Your task to perform on an android device: turn on javascript in the chrome app Image 0: 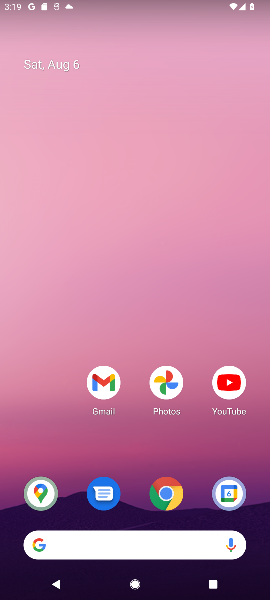
Step 0: drag from (201, 523) to (170, 200)
Your task to perform on an android device: turn on javascript in the chrome app Image 1: 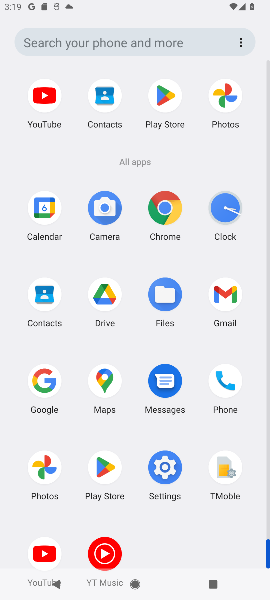
Step 1: click (163, 210)
Your task to perform on an android device: turn on javascript in the chrome app Image 2: 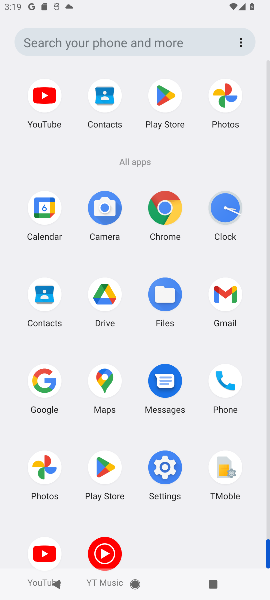
Step 2: click (163, 210)
Your task to perform on an android device: turn on javascript in the chrome app Image 3: 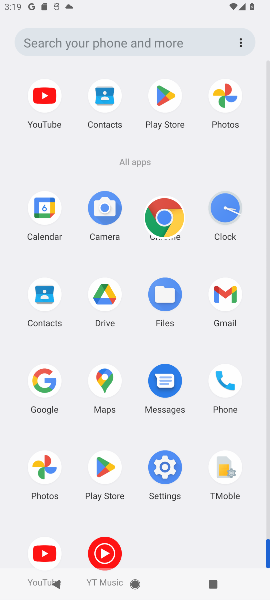
Step 3: click (168, 213)
Your task to perform on an android device: turn on javascript in the chrome app Image 4: 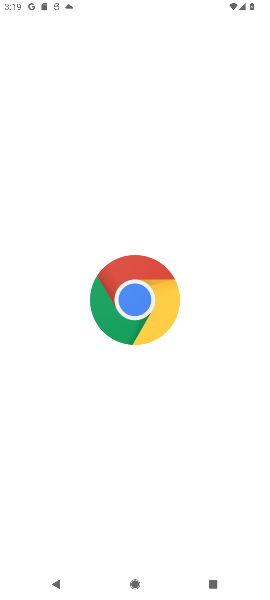
Step 4: click (165, 209)
Your task to perform on an android device: turn on javascript in the chrome app Image 5: 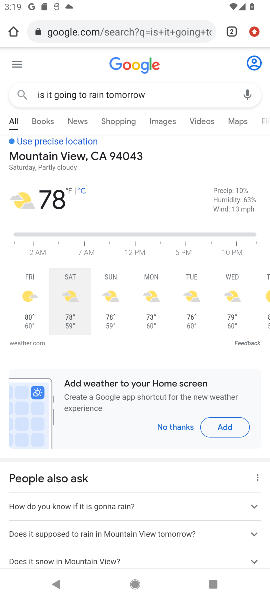
Step 5: drag from (255, 29) to (226, 300)
Your task to perform on an android device: turn on javascript in the chrome app Image 6: 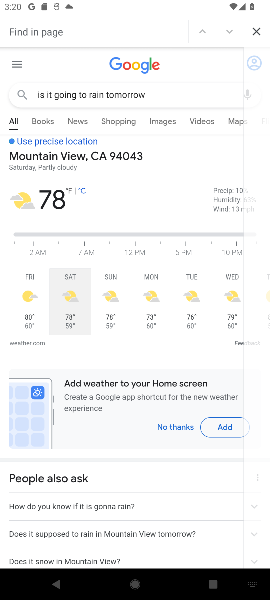
Step 6: click (254, 26)
Your task to perform on an android device: turn on javascript in the chrome app Image 7: 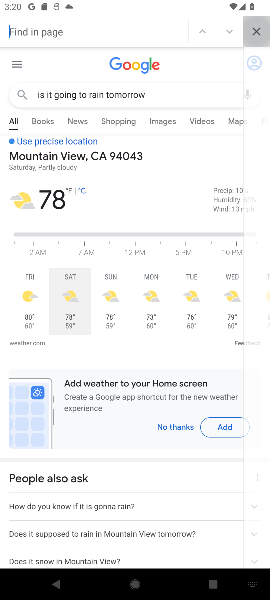
Step 7: click (254, 26)
Your task to perform on an android device: turn on javascript in the chrome app Image 8: 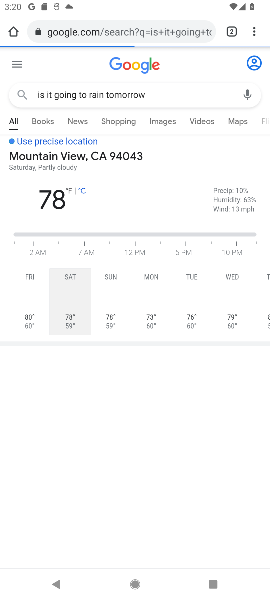
Step 8: drag from (255, 26) to (191, 411)
Your task to perform on an android device: turn on javascript in the chrome app Image 9: 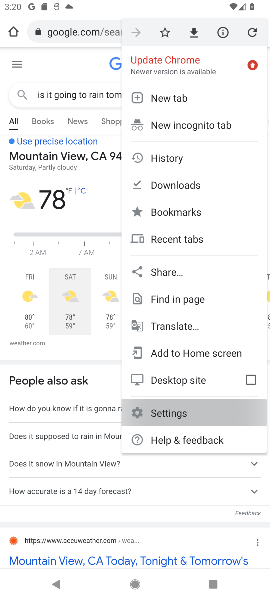
Step 9: click (192, 411)
Your task to perform on an android device: turn on javascript in the chrome app Image 10: 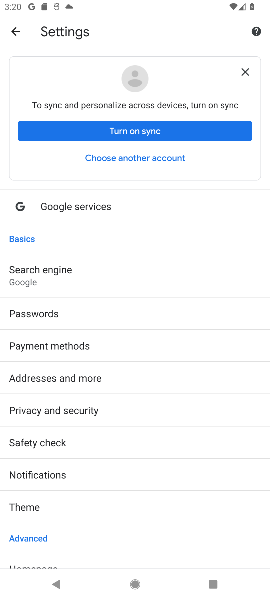
Step 10: drag from (114, 482) to (71, 172)
Your task to perform on an android device: turn on javascript in the chrome app Image 11: 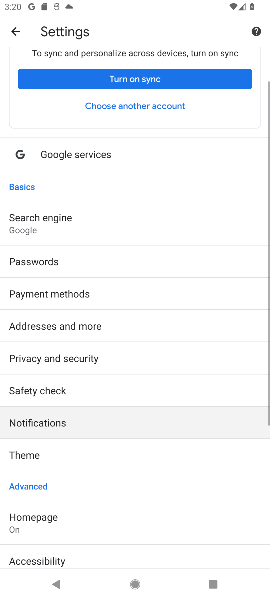
Step 11: click (243, 70)
Your task to perform on an android device: turn on javascript in the chrome app Image 12: 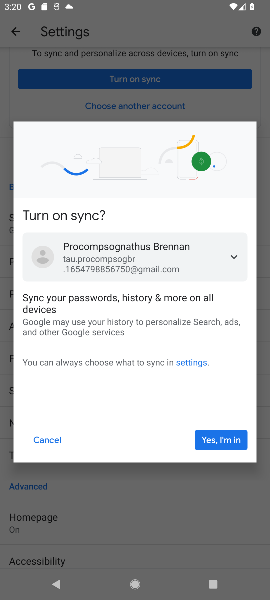
Step 12: click (51, 437)
Your task to perform on an android device: turn on javascript in the chrome app Image 13: 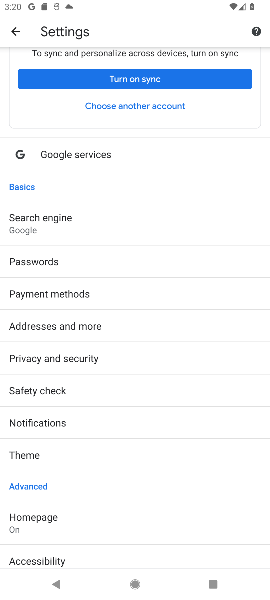
Step 13: drag from (64, 423) to (47, 254)
Your task to perform on an android device: turn on javascript in the chrome app Image 14: 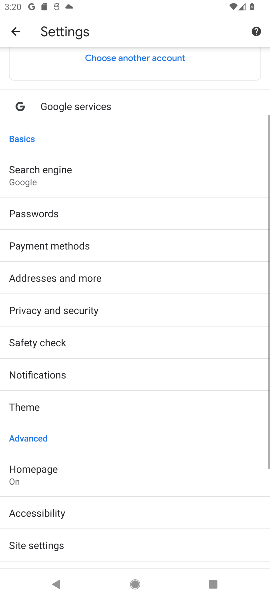
Step 14: drag from (80, 500) to (88, 189)
Your task to perform on an android device: turn on javascript in the chrome app Image 15: 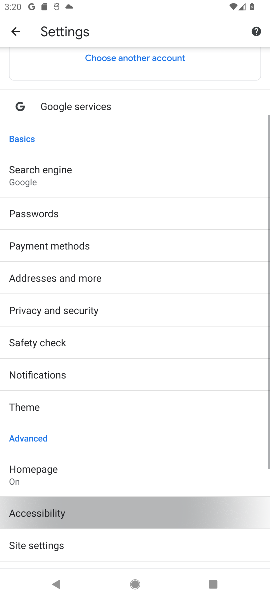
Step 15: drag from (85, 433) to (83, 172)
Your task to perform on an android device: turn on javascript in the chrome app Image 16: 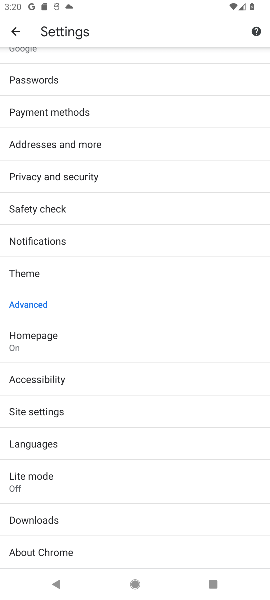
Step 16: click (30, 404)
Your task to perform on an android device: turn on javascript in the chrome app Image 17: 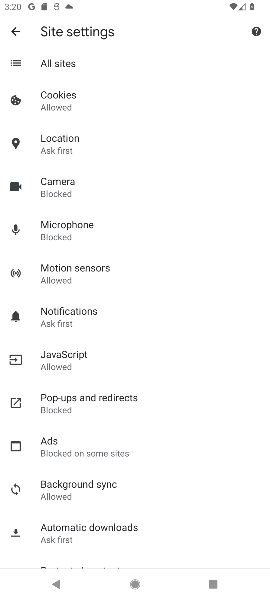
Step 17: click (61, 361)
Your task to perform on an android device: turn on javascript in the chrome app Image 18: 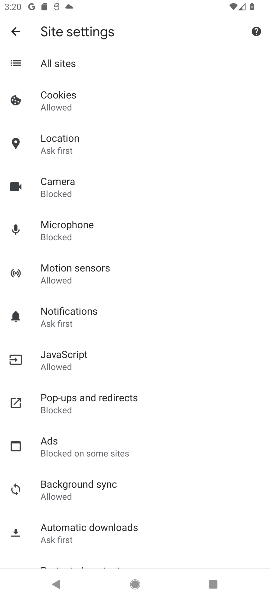
Step 18: click (61, 361)
Your task to perform on an android device: turn on javascript in the chrome app Image 19: 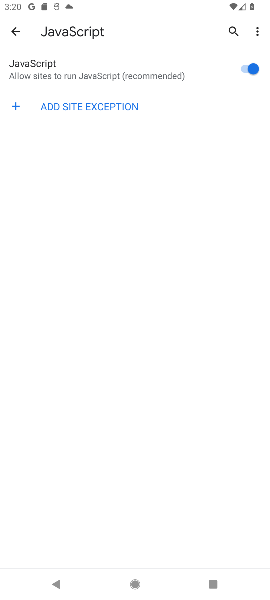
Step 19: task complete